Your task to perform on an android device: Check the news Image 0: 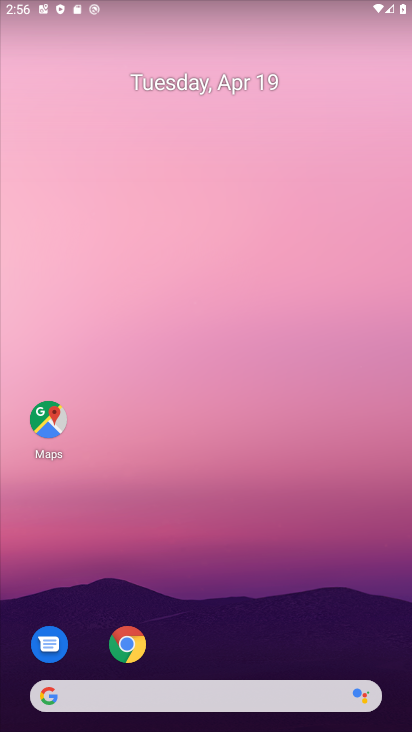
Step 0: drag from (341, 431) to (320, 150)
Your task to perform on an android device: Check the news Image 1: 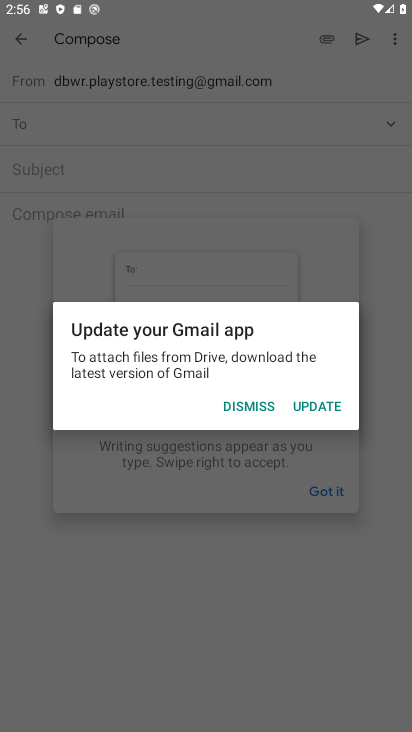
Step 1: task complete